Your task to perform on an android device: Open calendar and show me the first week of next month Image 0: 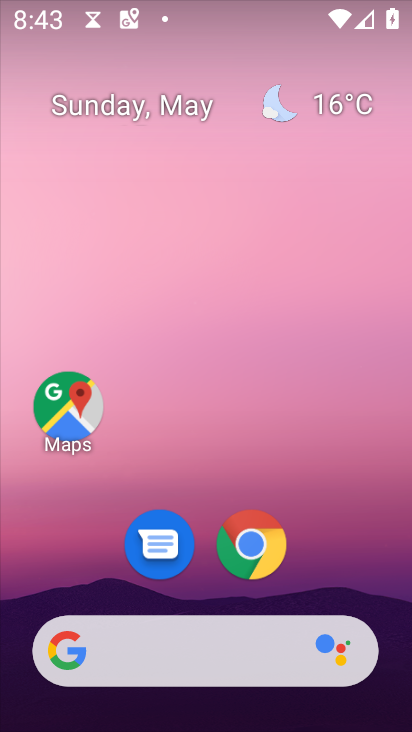
Step 0: drag from (319, 585) to (213, 102)
Your task to perform on an android device: Open calendar and show me the first week of next month Image 1: 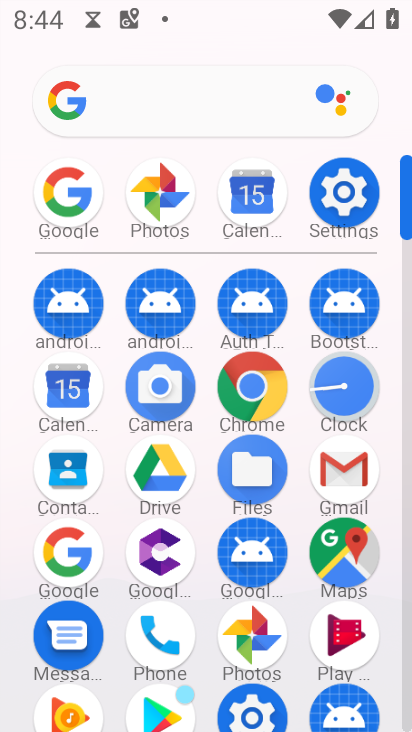
Step 1: click (56, 400)
Your task to perform on an android device: Open calendar and show me the first week of next month Image 2: 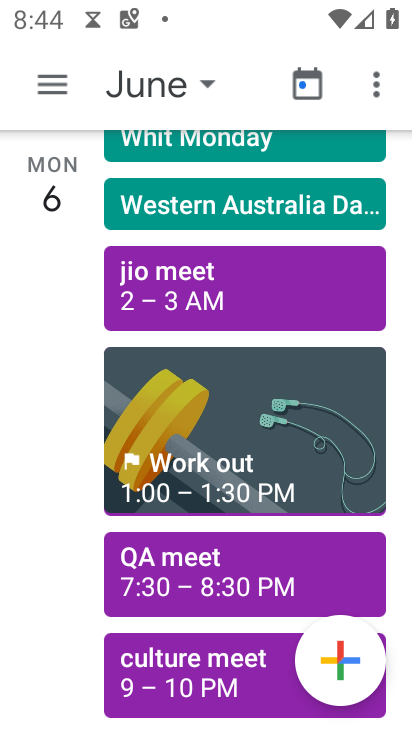
Step 2: click (39, 88)
Your task to perform on an android device: Open calendar and show me the first week of next month Image 3: 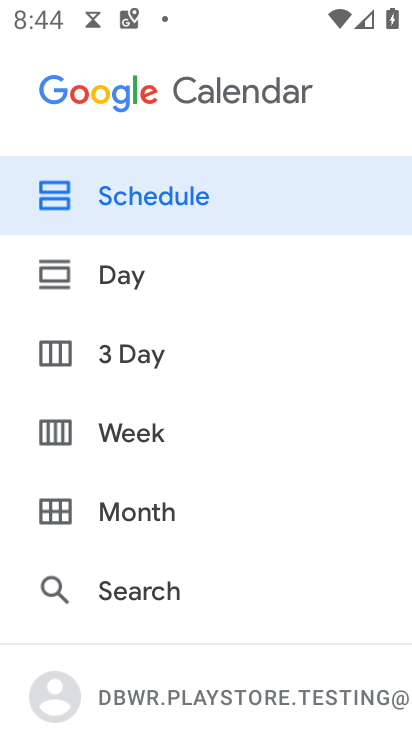
Step 3: click (143, 429)
Your task to perform on an android device: Open calendar and show me the first week of next month Image 4: 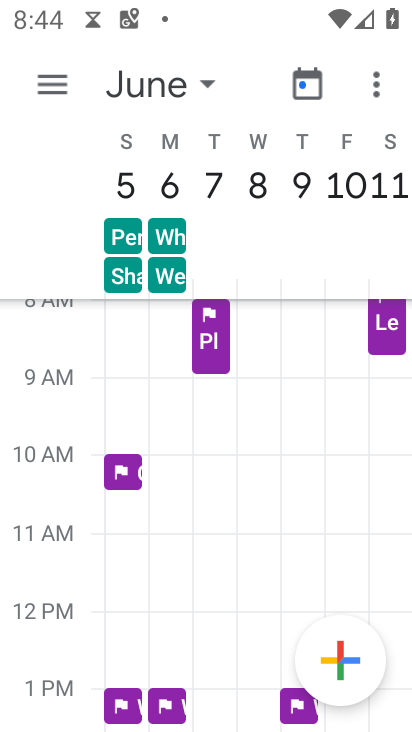
Step 4: click (147, 91)
Your task to perform on an android device: Open calendar and show me the first week of next month Image 5: 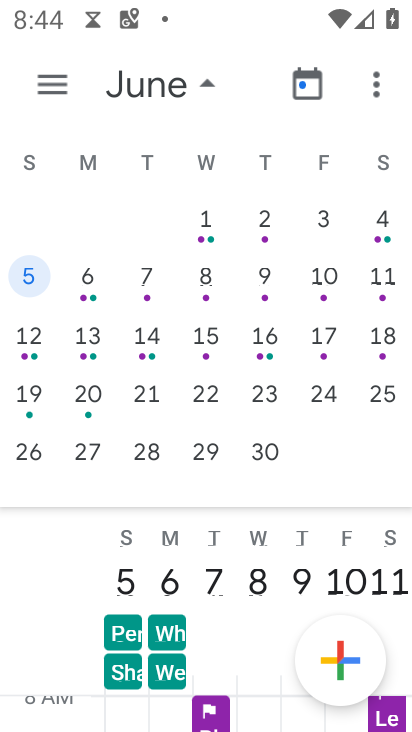
Step 5: task complete